Your task to perform on an android device: delete location history Image 0: 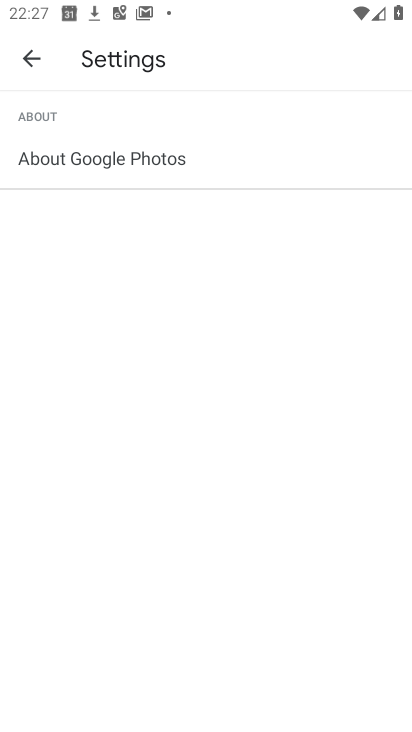
Step 0: press home button
Your task to perform on an android device: delete location history Image 1: 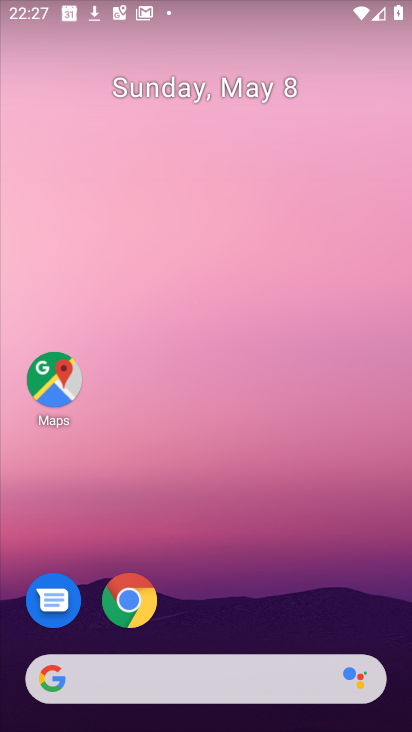
Step 1: drag from (309, 695) to (259, 208)
Your task to perform on an android device: delete location history Image 2: 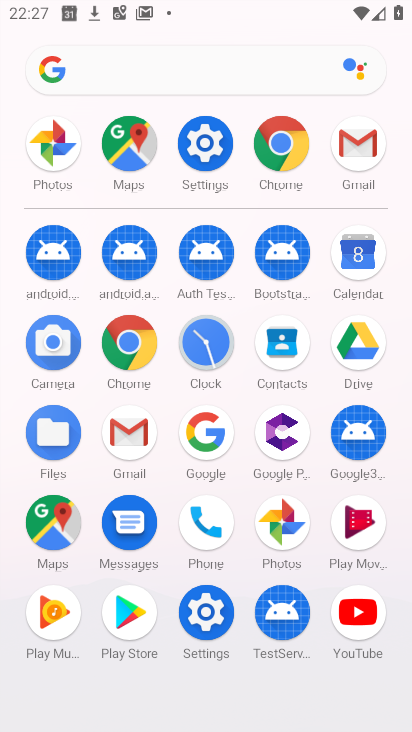
Step 2: click (127, 158)
Your task to perform on an android device: delete location history Image 3: 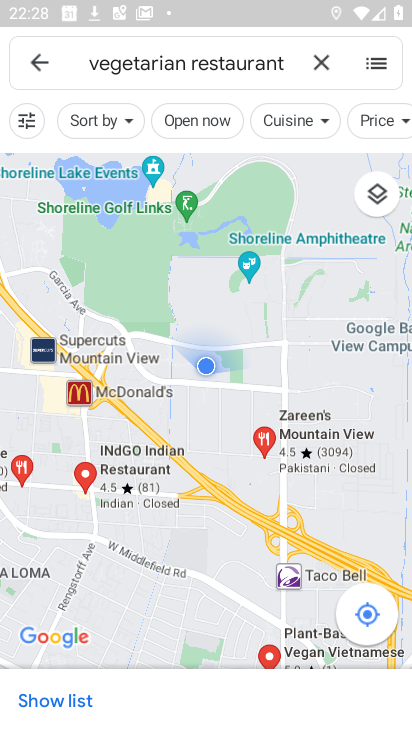
Step 3: press home button
Your task to perform on an android device: delete location history Image 4: 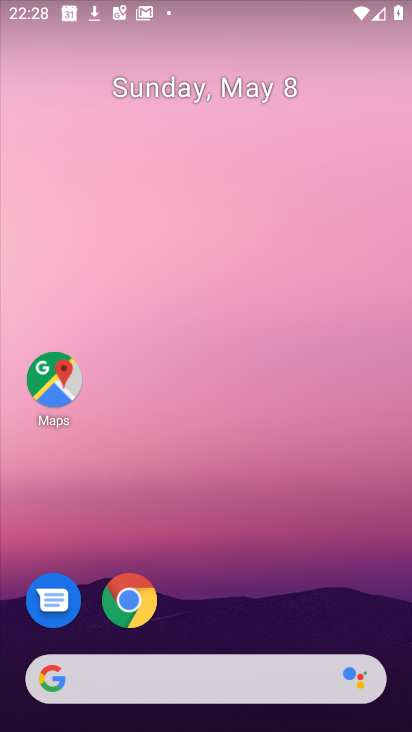
Step 4: drag from (301, 679) to (376, 121)
Your task to perform on an android device: delete location history Image 5: 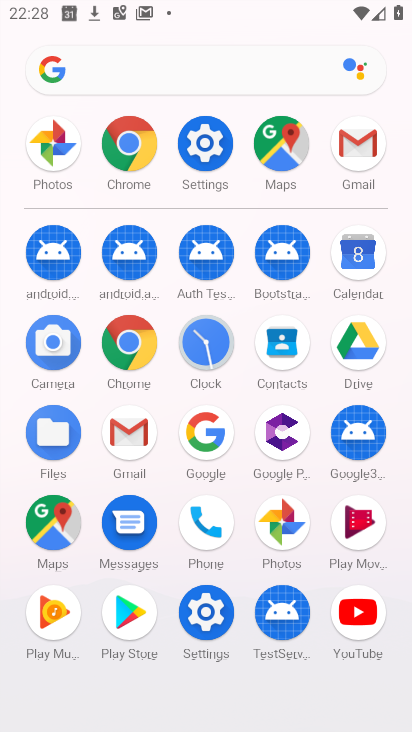
Step 5: click (207, 145)
Your task to perform on an android device: delete location history Image 6: 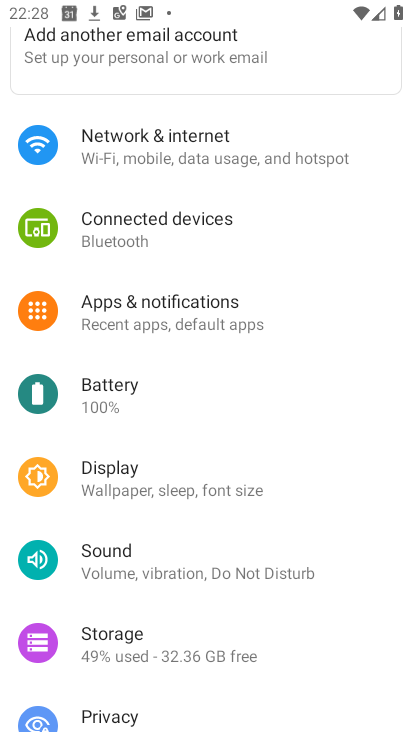
Step 6: drag from (203, 145) to (193, 312)
Your task to perform on an android device: delete location history Image 7: 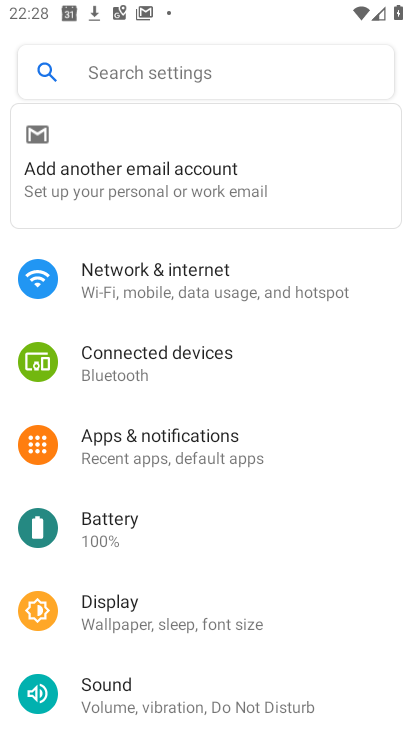
Step 7: click (147, 73)
Your task to perform on an android device: delete location history Image 8: 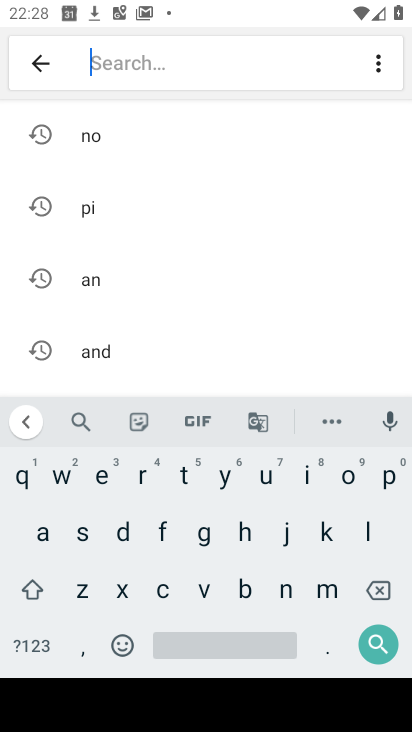
Step 8: click (368, 536)
Your task to perform on an android device: delete location history Image 9: 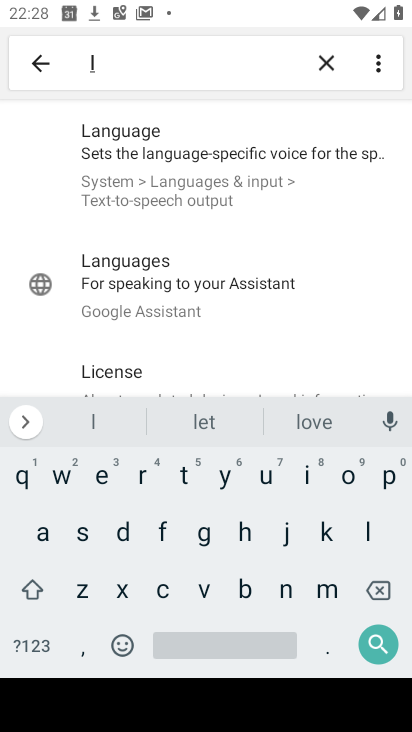
Step 9: click (346, 478)
Your task to perform on an android device: delete location history Image 10: 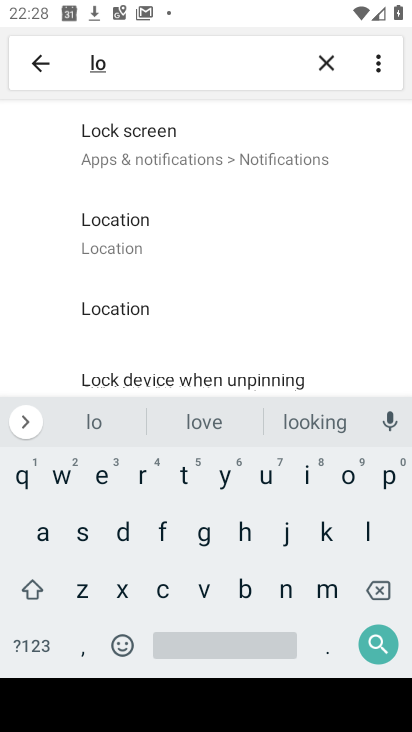
Step 10: click (124, 226)
Your task to perform on an android device: delete location history Image 11: 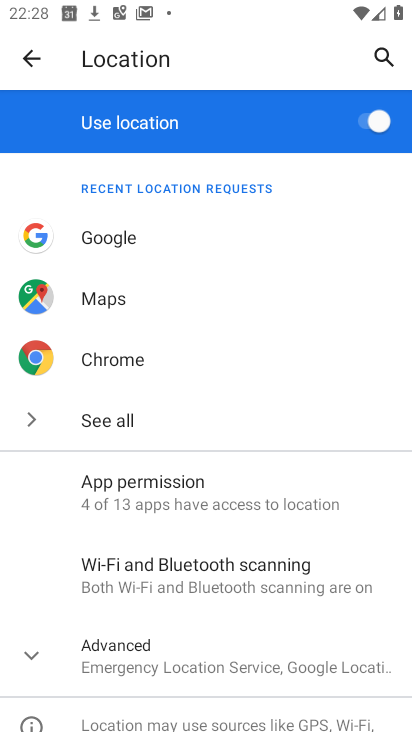
Step 11: click (76, 643)
Your task to perform on an android device: delete location history Image 12: 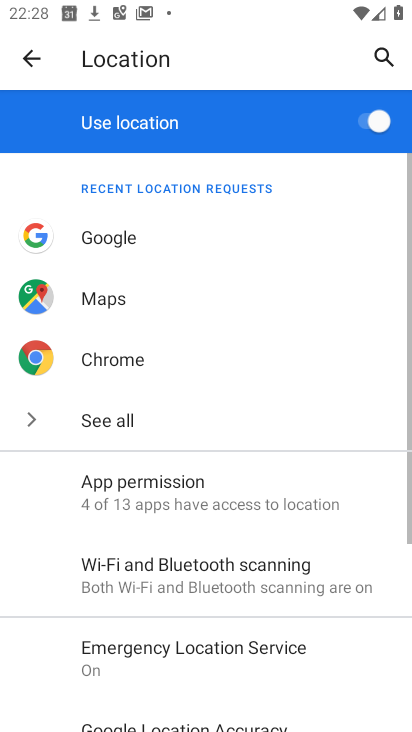
Step 12: drag from (211, 505) to (278, 225)
Your task to perform on an android device: delete location history Image 13: 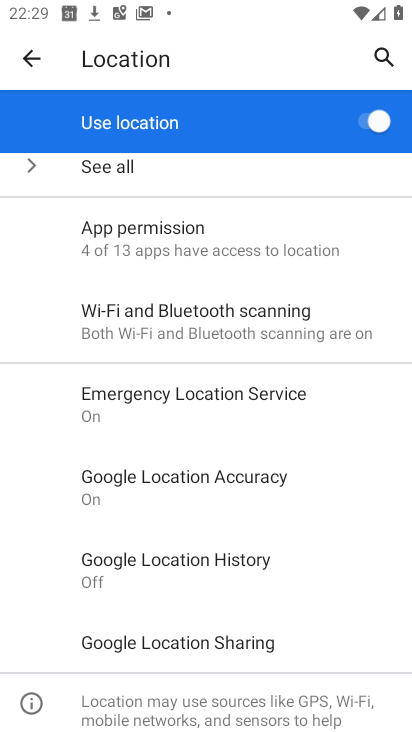
Step 13: click (187, 550)
Your task to perform on an android device: delete location history Image 14: 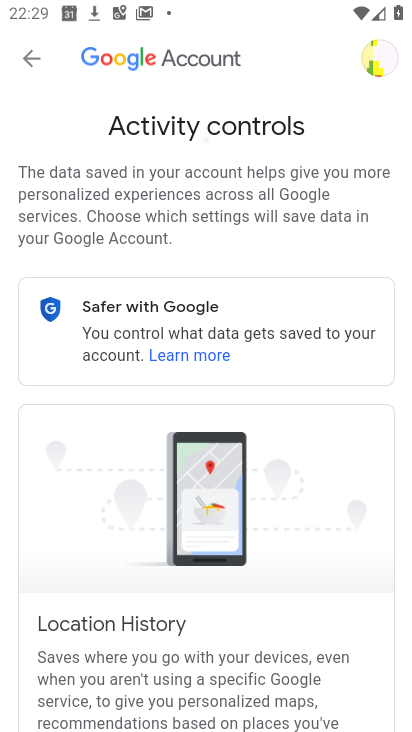
Step 14: task complete